Your task to perform on an android device: add a contact in the contacts app Image 0: 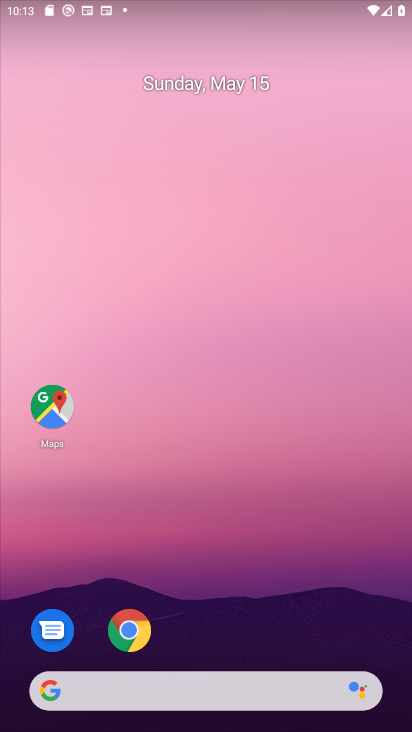
Step 0: drag from (203, 638) to (260, 1)
Your task to perform on an android device: add a contact in the contacts app Image 1: 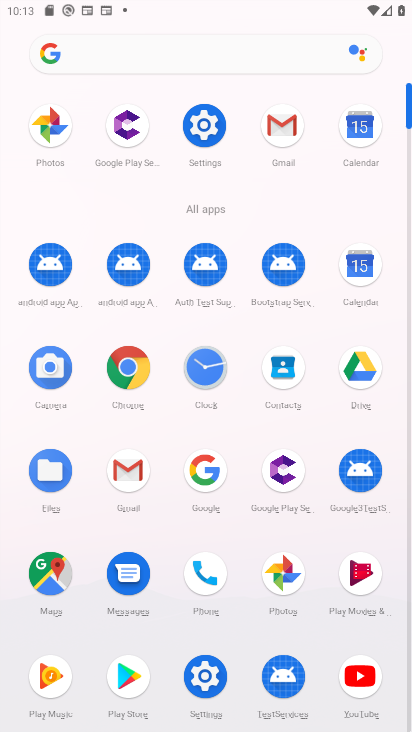
Step 1: click (282, 361)
Your task to perform on an android device: add a contact in the contacts app Image 2: 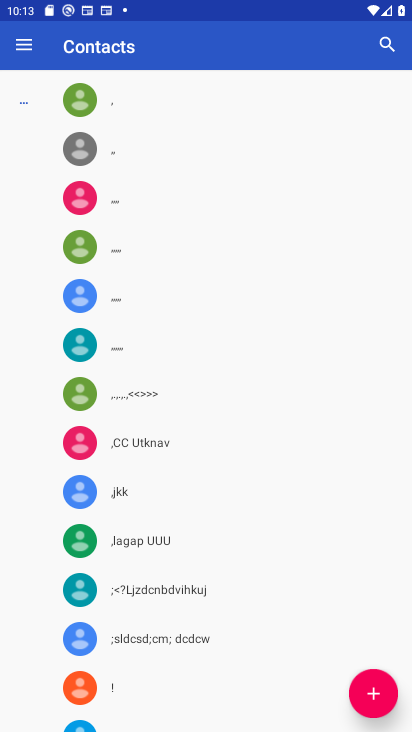
Step 2: click (375, 691)
Your task to perform on an android device: add a contact in the contacts app Image 3: 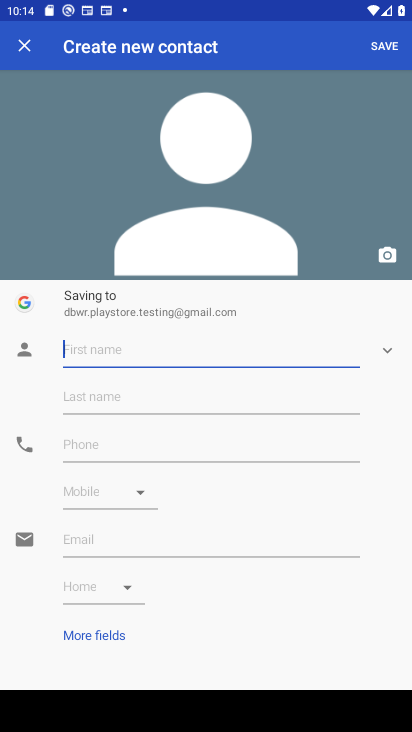
Step 3: type "mnvfxs"
Your task to perform on an android device: add a contact in the contacts app Image 4: 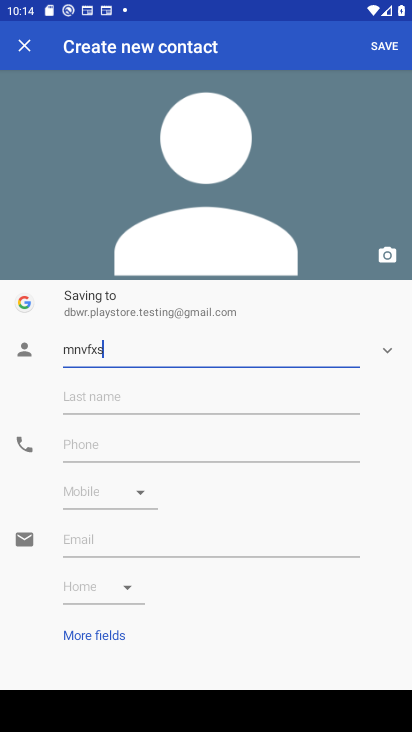
Step 4: click (375, 46)
Your task to perform on an android device: add a contact in the contacts app Image 5: 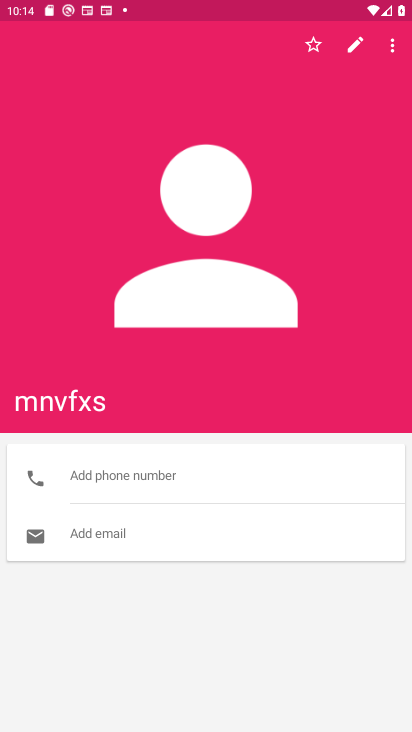
Step 5: task complete